Your task to perform on an android device: check data usage Image 0: 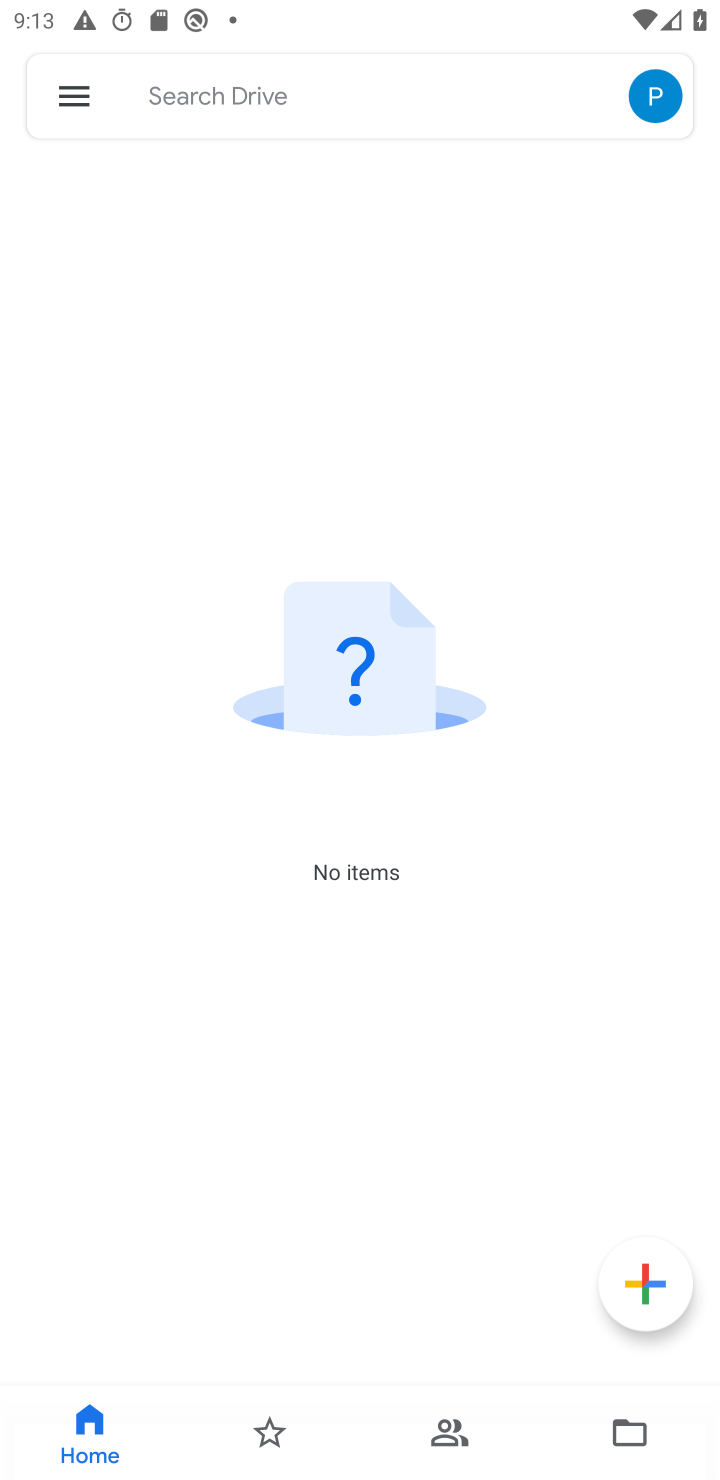
Step 0: press back button
Your task to perform on an android device: check data usage Image 1: 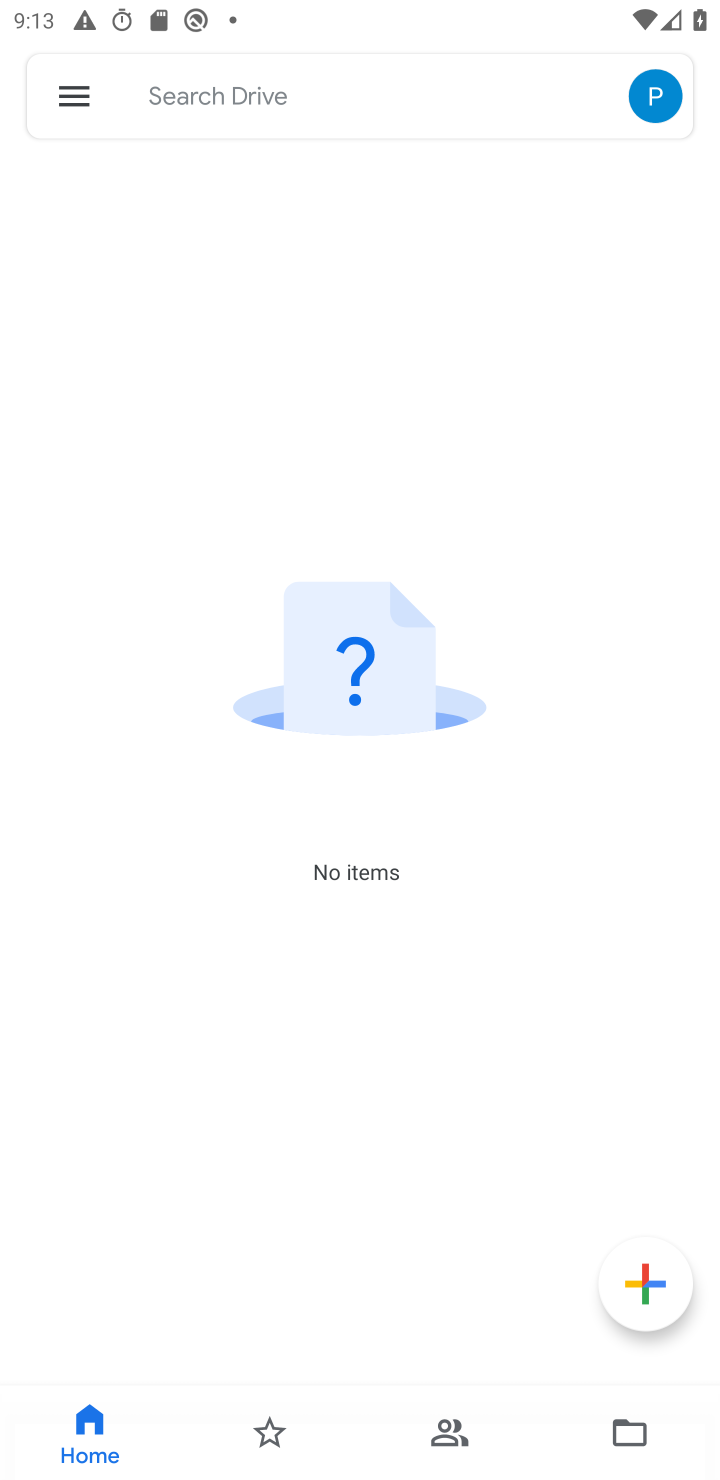
Step 1: press home button
Your task to perform on an android device: check data usage Image 2: 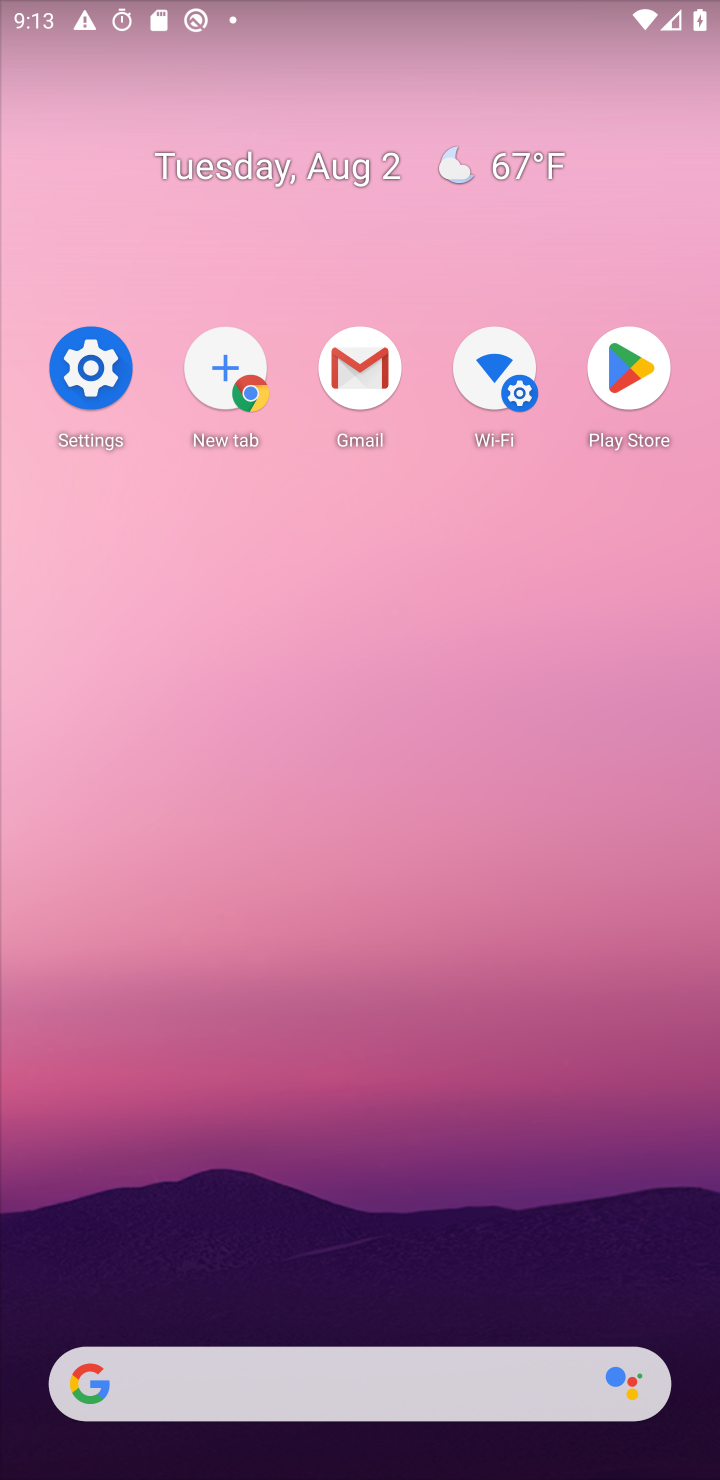
Step 2: drag from (499, 1189) to (402, 254)
Your task to perform on an android device: check data usage Image 3: 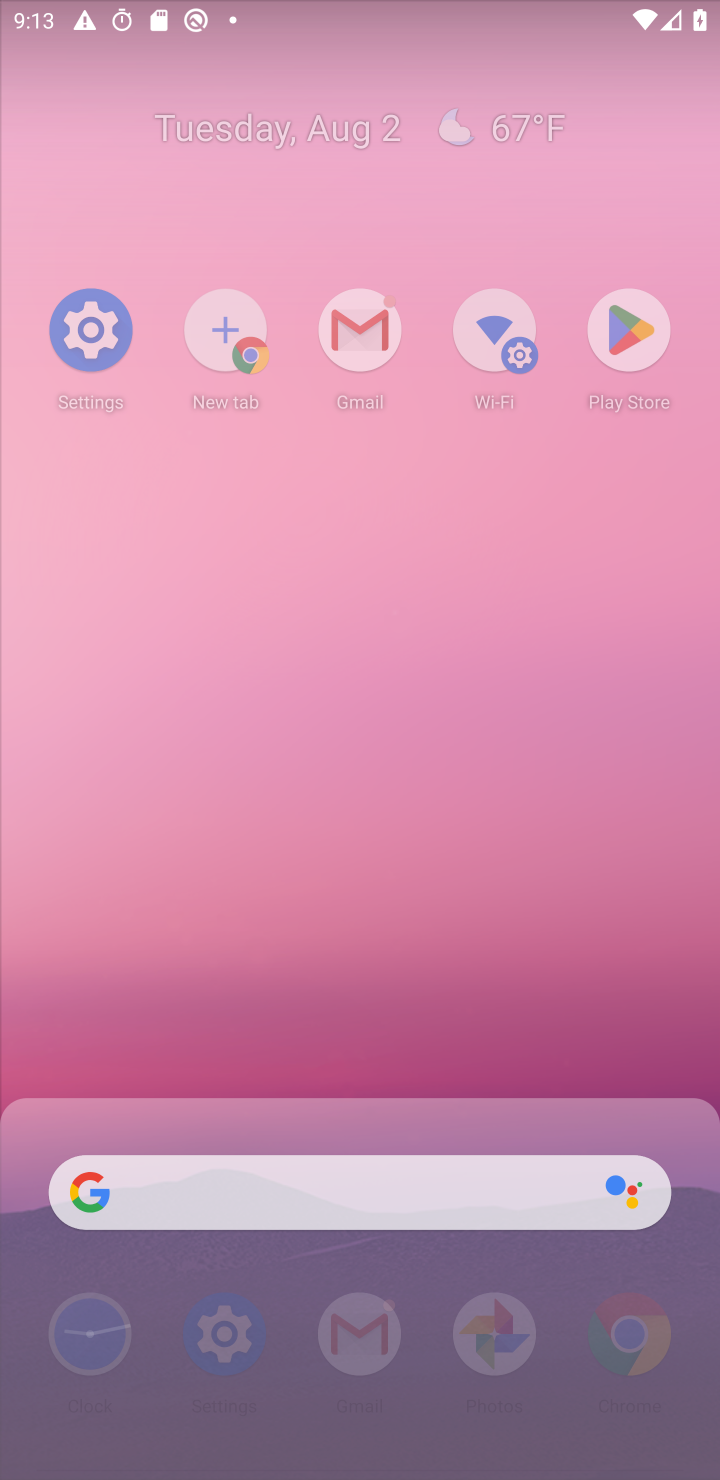
Step 3: drag from (332, 852) to (310, 167)
Your task to perform on an android device: check data usage Image 4: 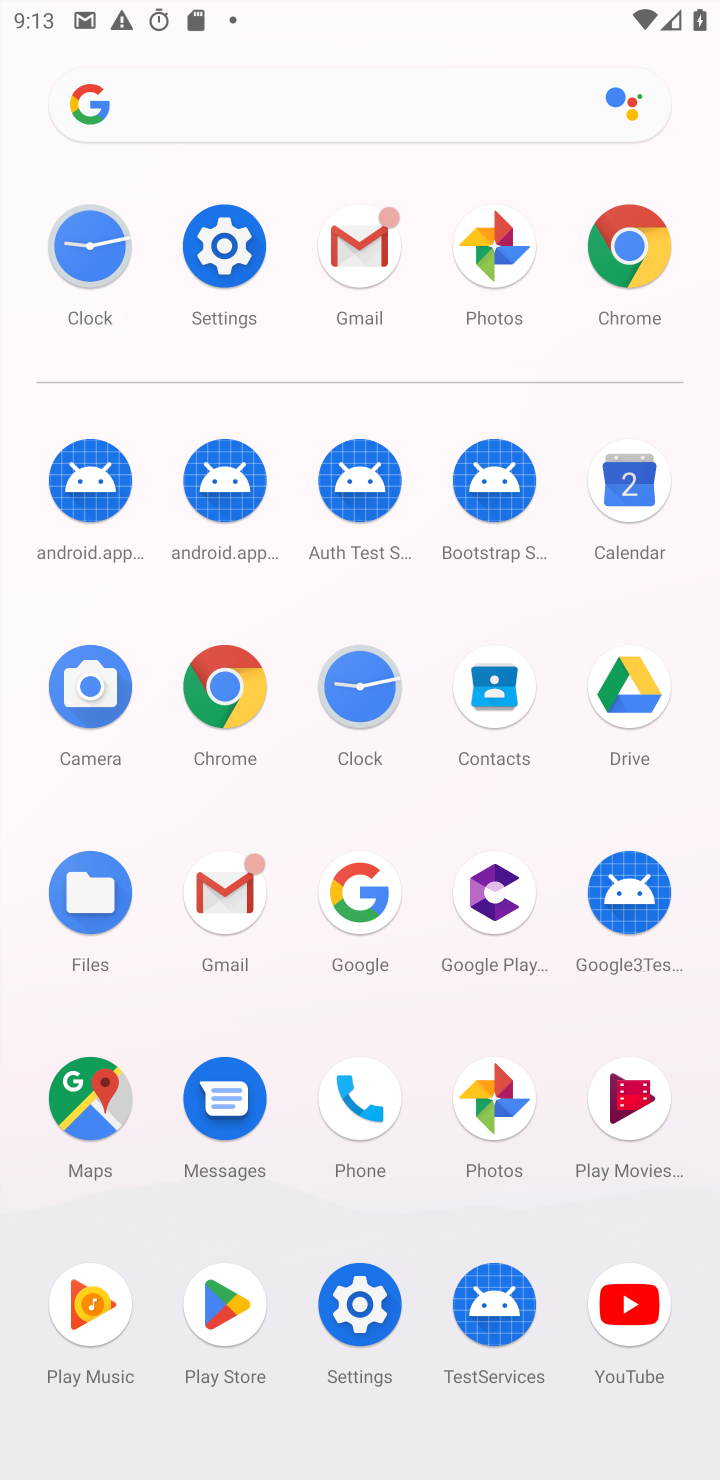
Step 4: click (226, 257)
Your task to perform on an android device: check data usage Image 5: 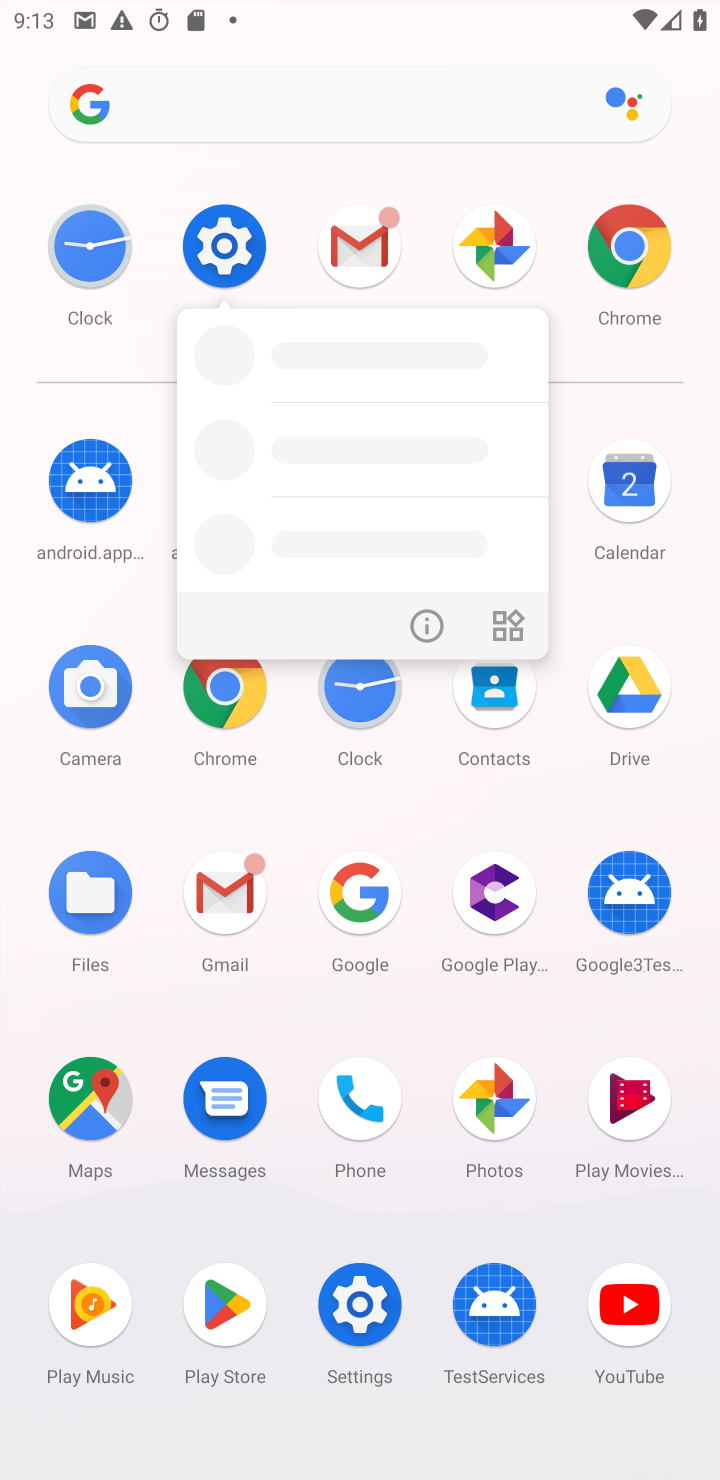
Step 5: click (234, 259)
Your task to perform on an android device: check data usage Image 6: 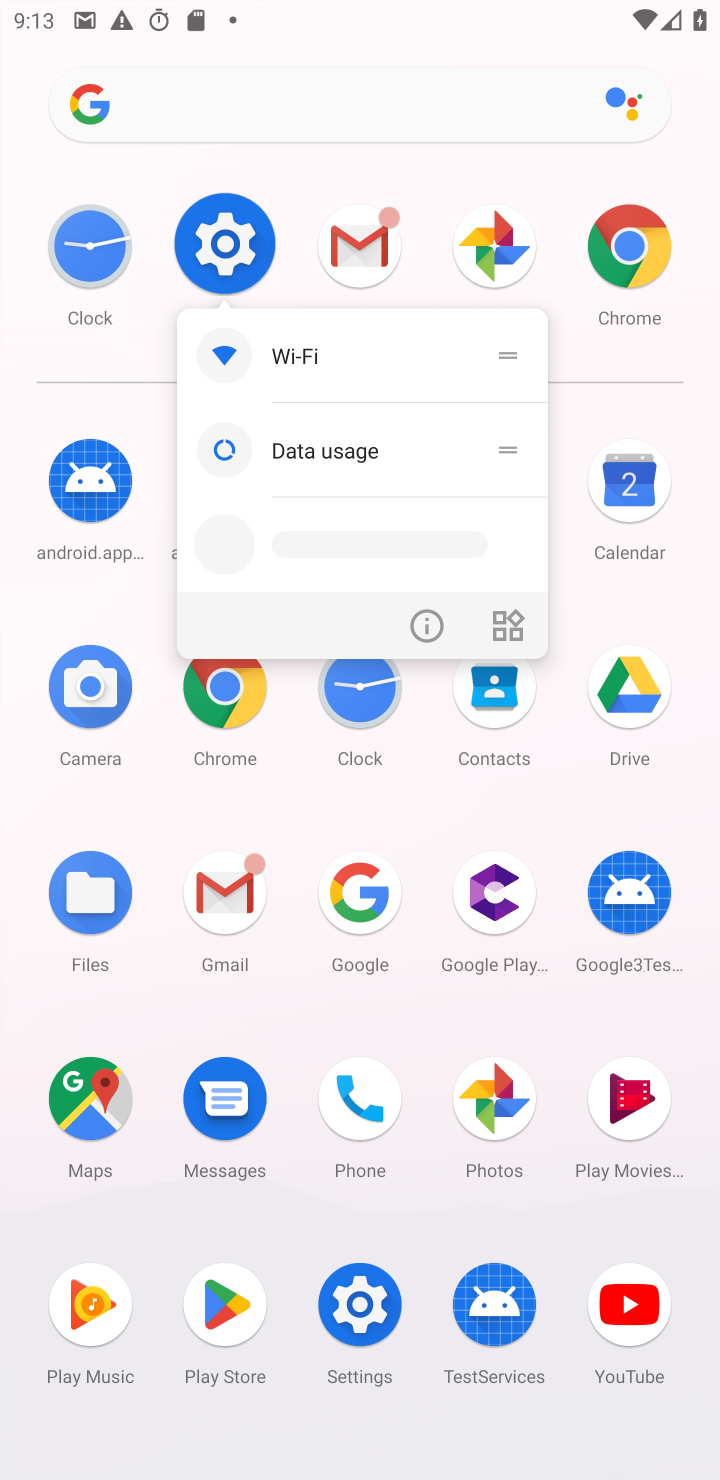
Step 6: click (239, 255)
Your task to perform on an android device: check data usage Image 7: 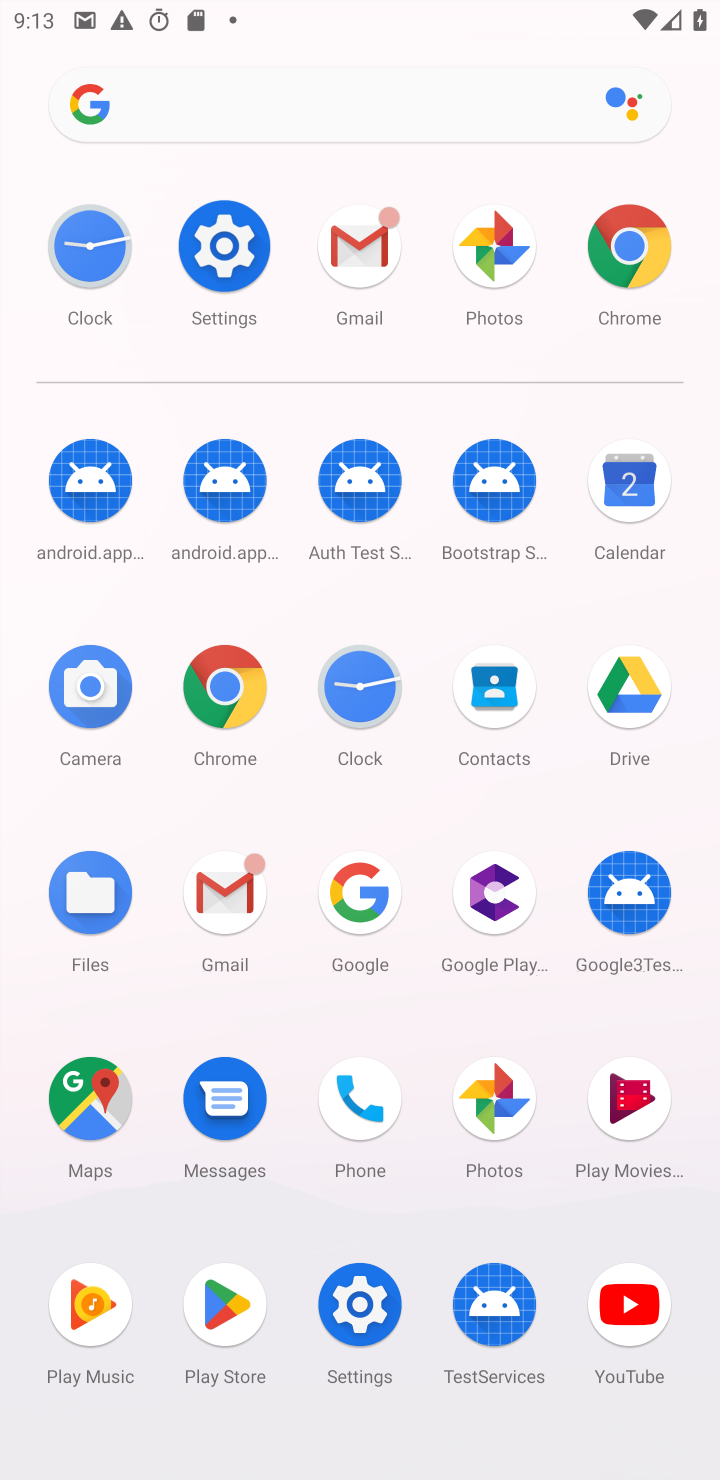
Step 7: click (231, 235)
Your task to perform on an android device: check data usage Image 8: 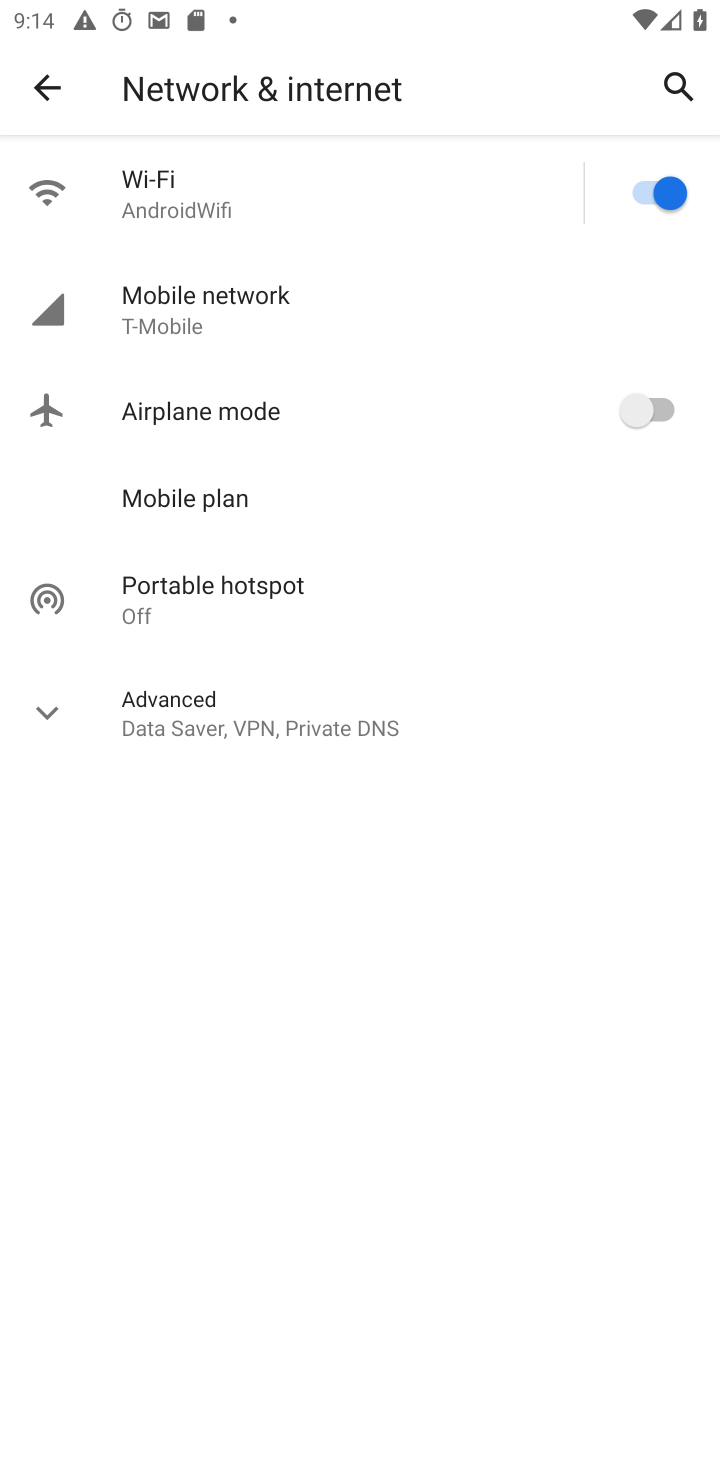
Step 8: click (196, 321)
Your task to perform on an android device: check data usage Image 9: 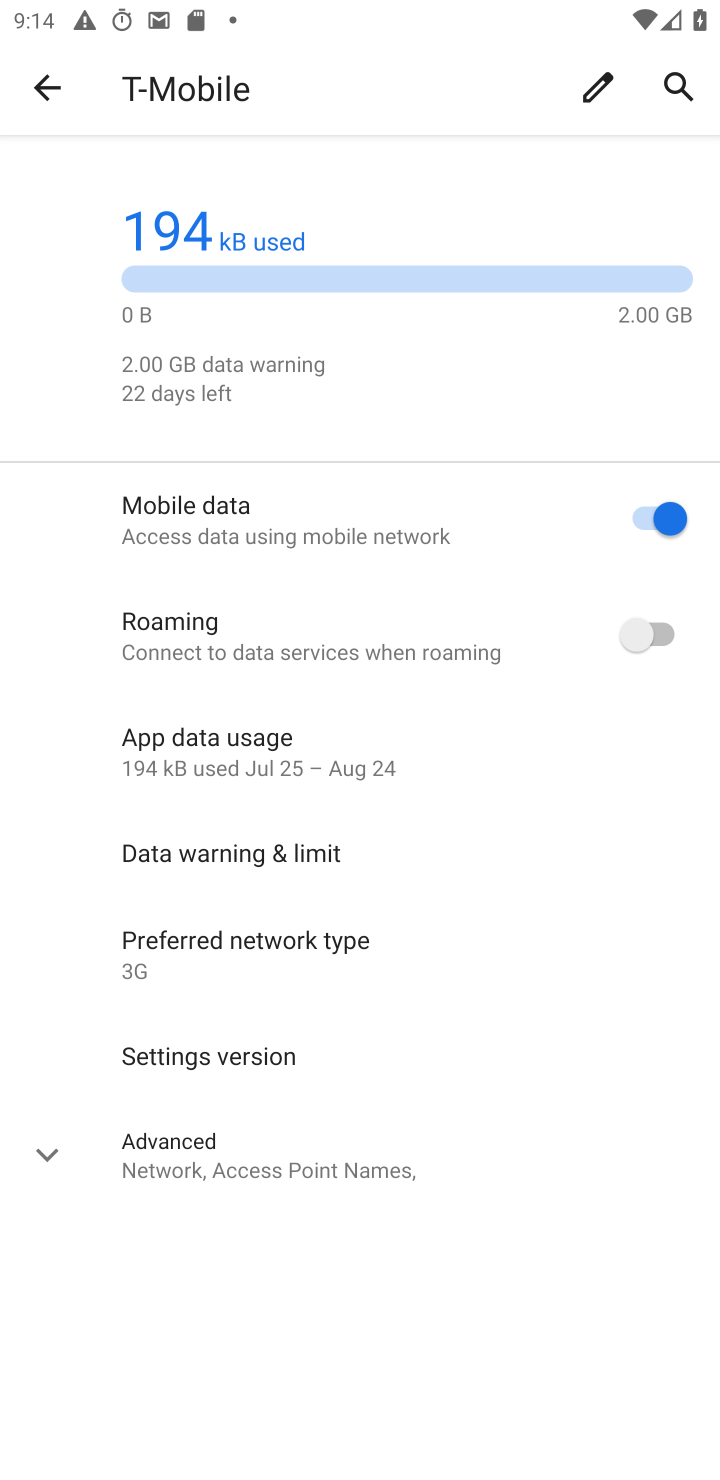
Step 9: task complete